Your task to perform on an android device: Search for Mexican restaurants on Maps Image 0: 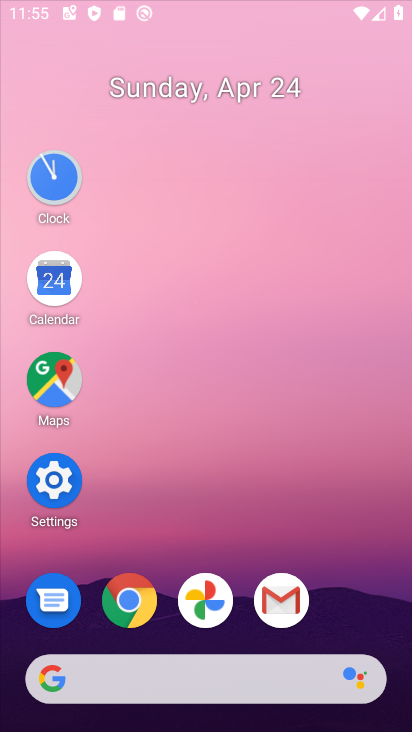
Step 0: click (45, 287)
Your task to perform on an android device: Search for Mexican restaurants on Maps Image 1: 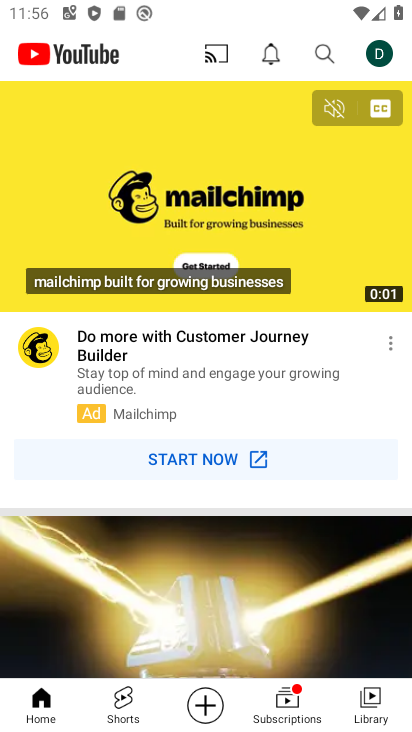
Step 1: type ""
Your task to perform on an android device: Search for Mexican restaurants on Maps Image 2: 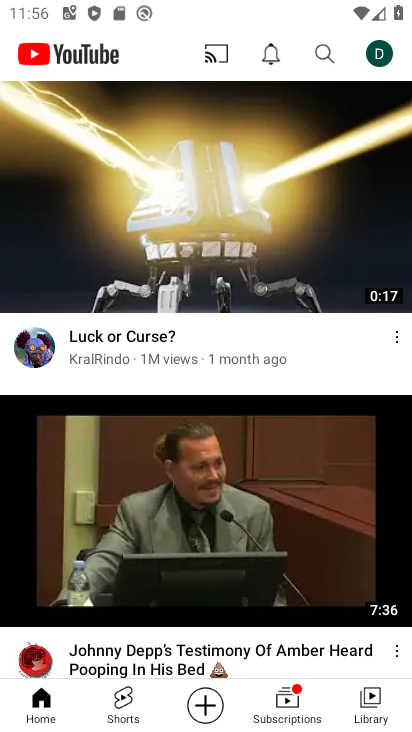
Step 2: press home button
Your task to perform on an android device: Search for Mexican restaurants on Maps Image 3: 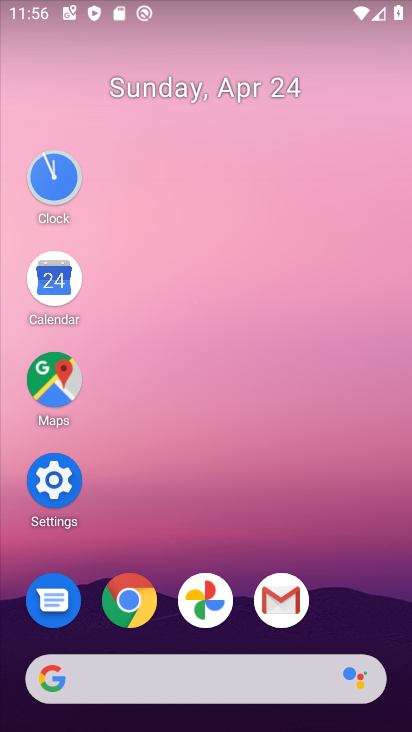
Step 3: click (48, 389)
Your task to perform on an android device: Search for Mexican restaurants on Maps Image 4: 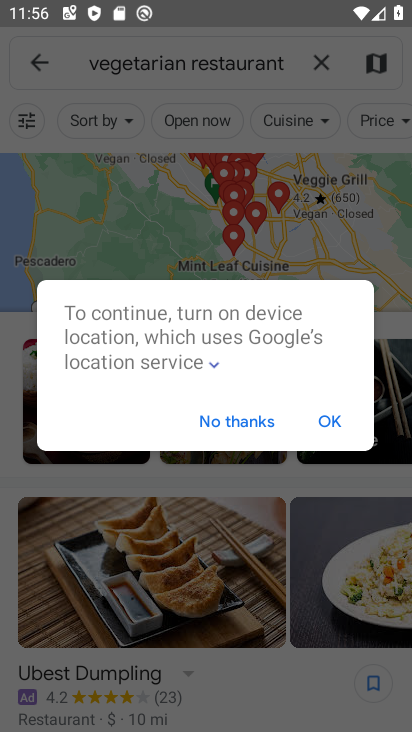
Step 4: click (322, 429)
Your task to perform on an android device: Search for Mexican restaurants on Maps Image 5: 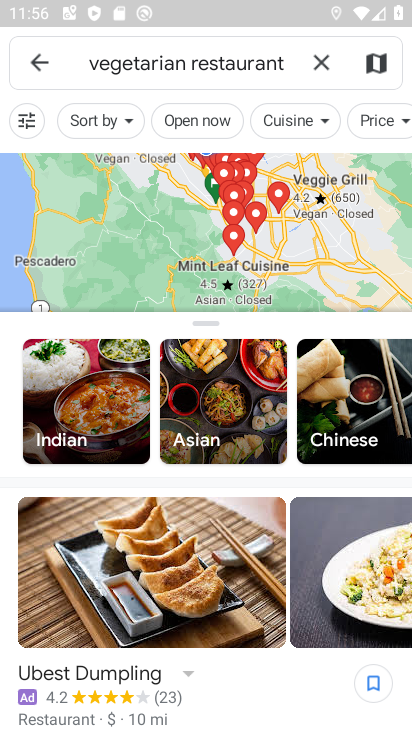
Step 5: click (322, 59)
Your task to perform on an android device: Search for Mexican restaurants on Maps Image 6: 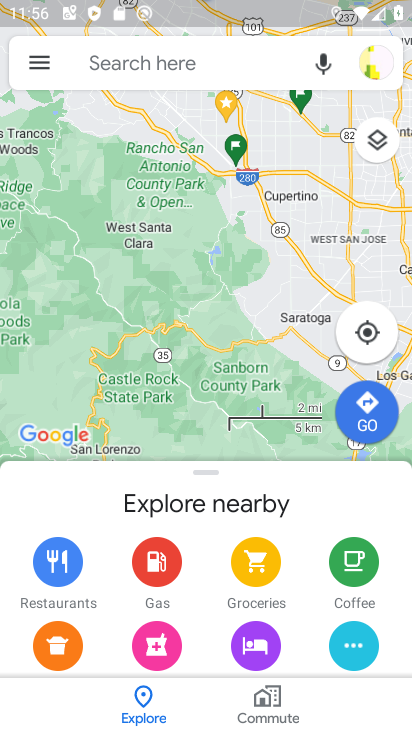
Step 6: click (155, 64)
Your task to perform on an android device: Search for Mexican restaurants on Maps Image 7: 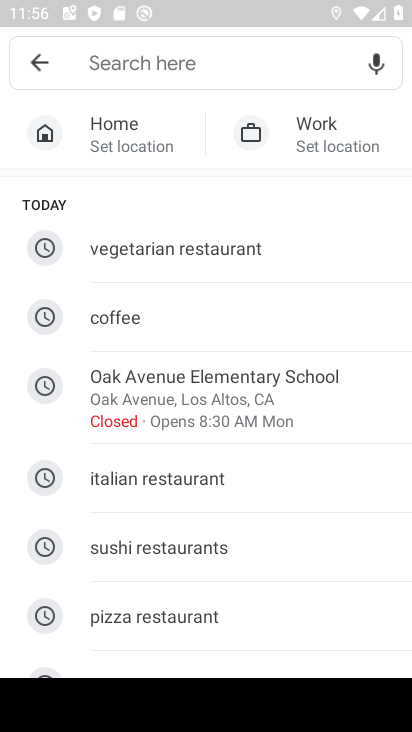
Step 7: type "Mexican restaurants"
Your task to perform on an android device: Search for Mexican restaurants on Maps Image 8: 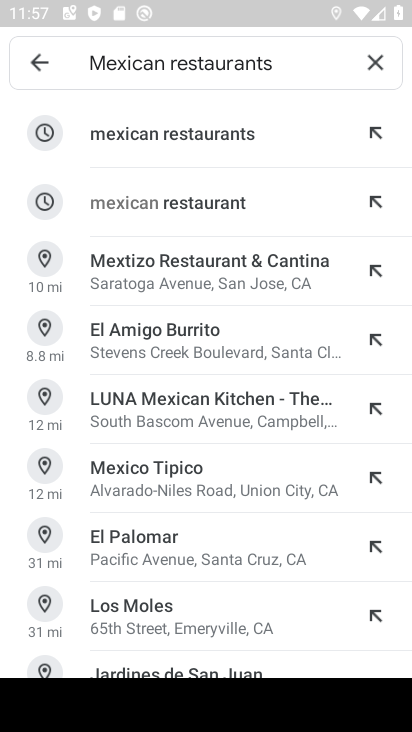
Step 8: click (196, 125)
Your task to perform on an android device: Search for Mexican restaurants on Maps Image 9: 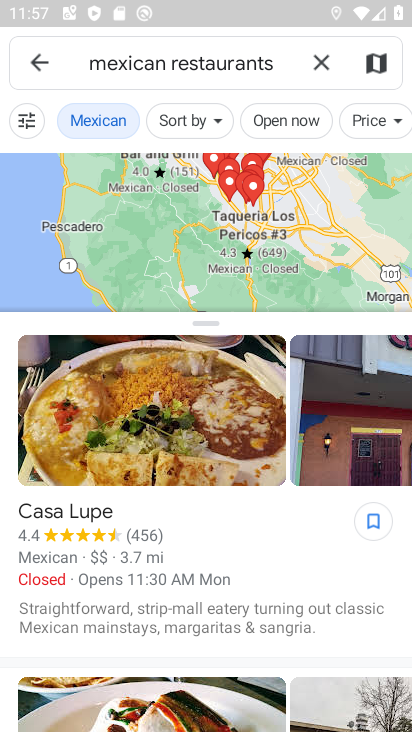
Step 9: task complete